Your task to perform on an android device: Go to accessibility settings Image 0: 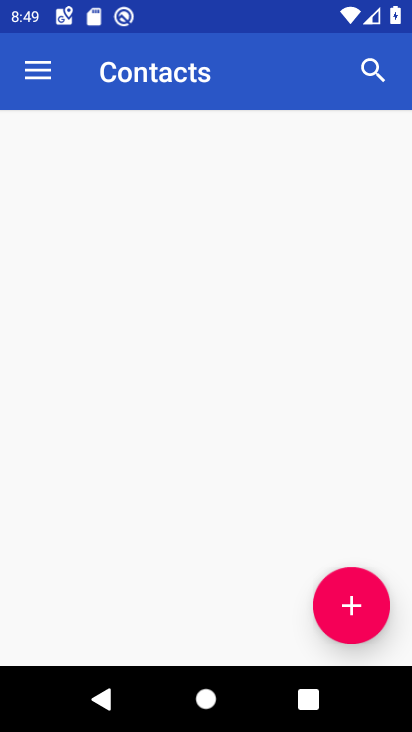
Step 0: drag from (216, 563) to (240, 229)
Your task to perform on an android device: Go to accessibility settings Image 1: 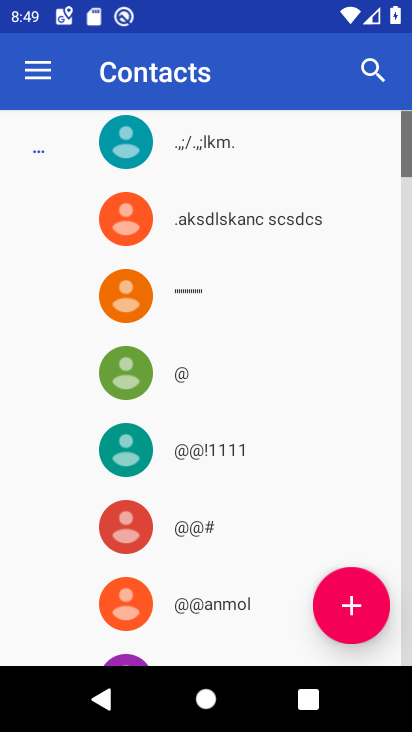
Step 1: press home button
Your task to perform on an android device: Go to accessibility settings Image 2: 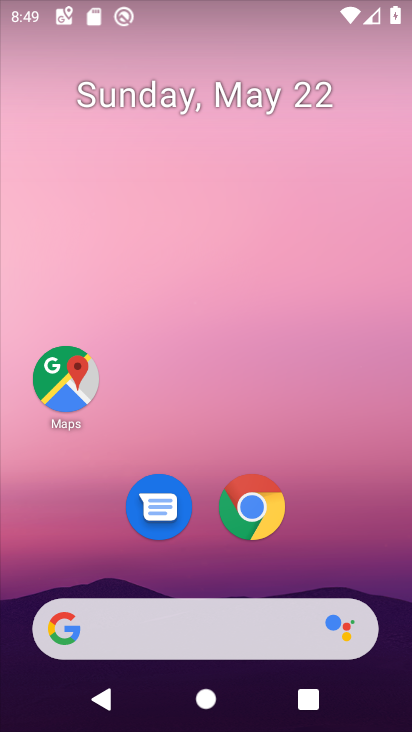
Step 2: drag from (197, 566) to (253, 131)
Your task to perform on an android device: Go to accessibility settings Image 3: 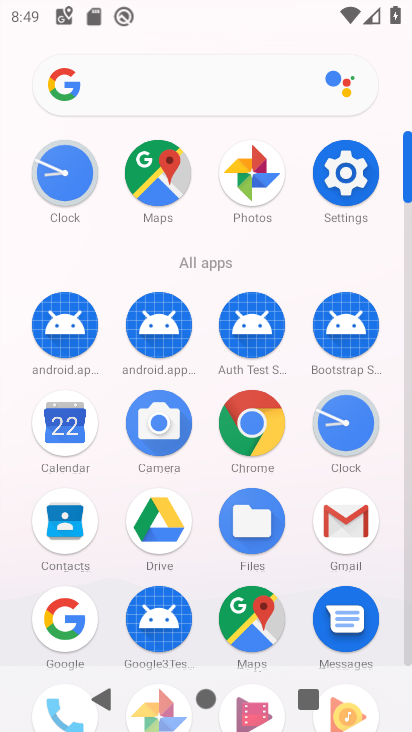
Step 3: click (335, 166)
Your task to perform on an android device: Go to accessibility settings Image 4: 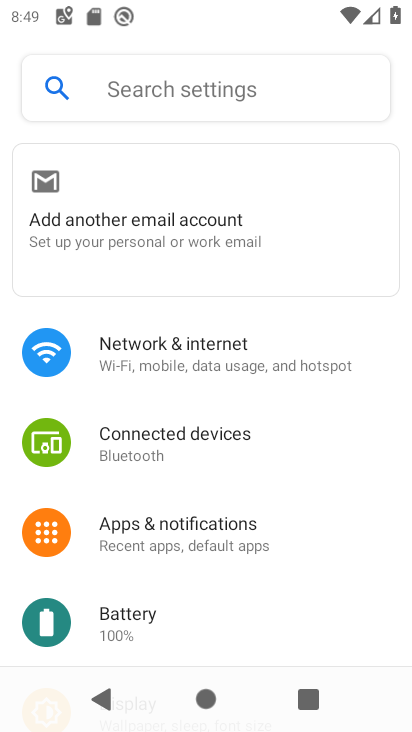
Step 4: drag from (137, 650) to (202, 242)
Your task to perform on an android device: Go to accessibility settings Image 5: 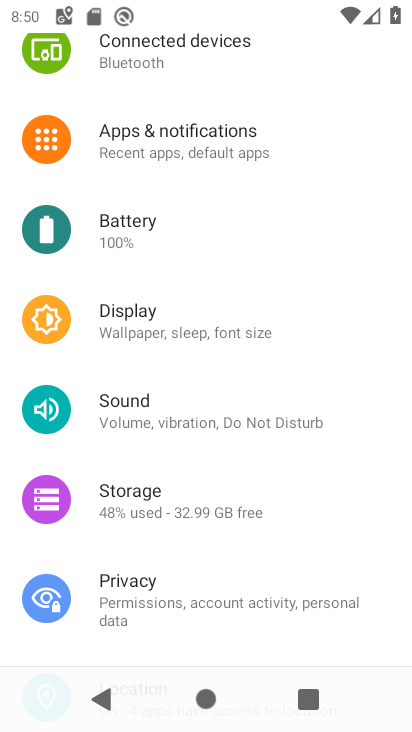
Step 5: drag from (123, 640) to (211, 176)
Your task to perform on an android device: Go to accessibility settings Image 6: 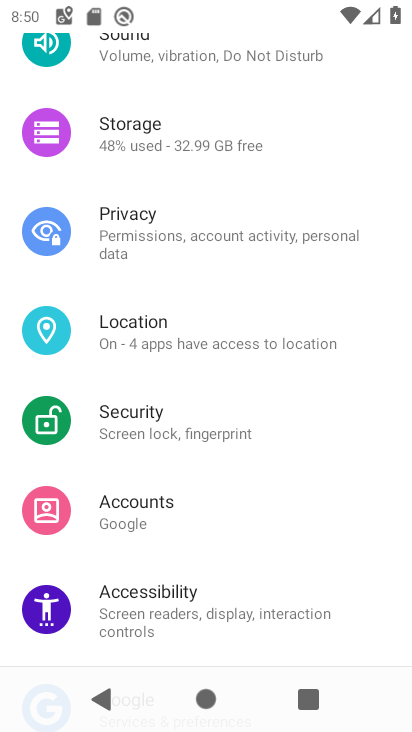
Step 6: click (195, 602)
Your task to perform on an android device: Go to accessibility settings Image 7: 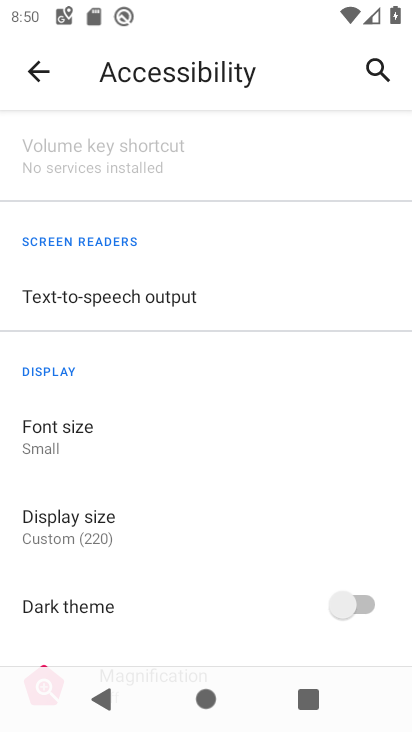
Step 7: task complete